Your task to perform on an android device: Open network settings Image 0: 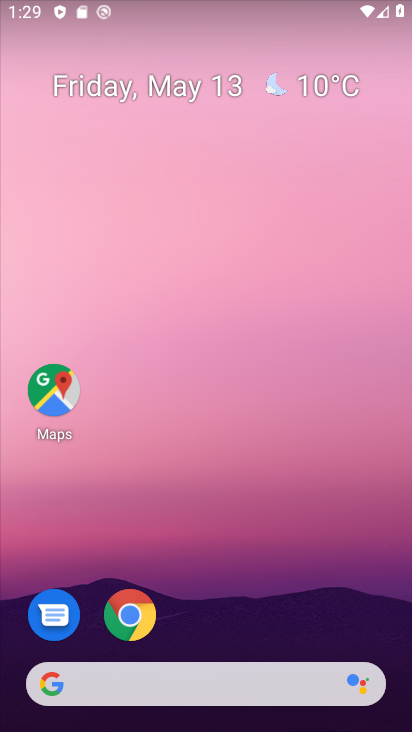
Step 0: drag from (166, 533) to (40, 118)
Your task to perform on an android device: Open network settings Image 1: 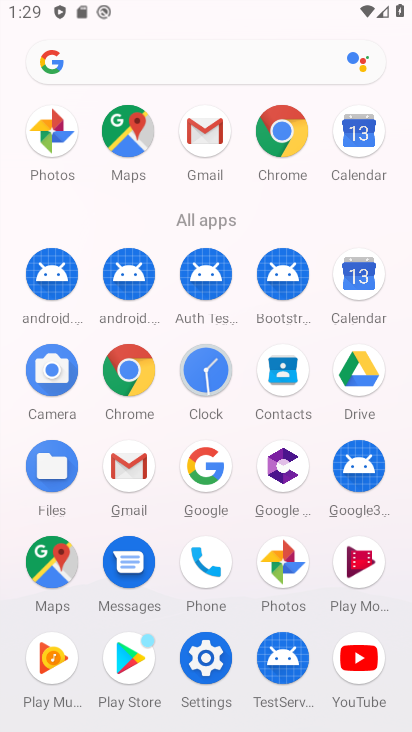
Step 1: click (211, 649)
Your task to perform on an android device: Open network settings Image 2: 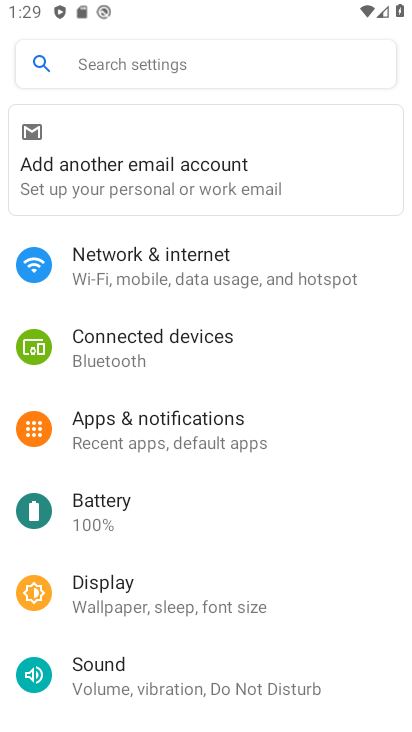
Step 2: click (214, 275)
Your task to perform on an android device: Open network settings Image 3: 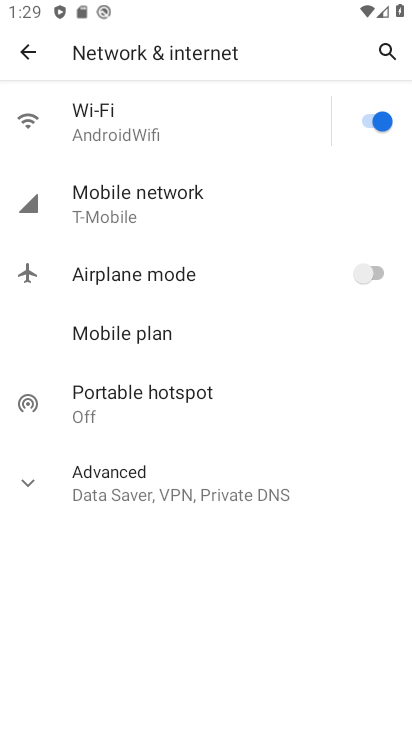
Step 3: click (154, 201)
Your task to perform on an android device: Open network settings Image 4: 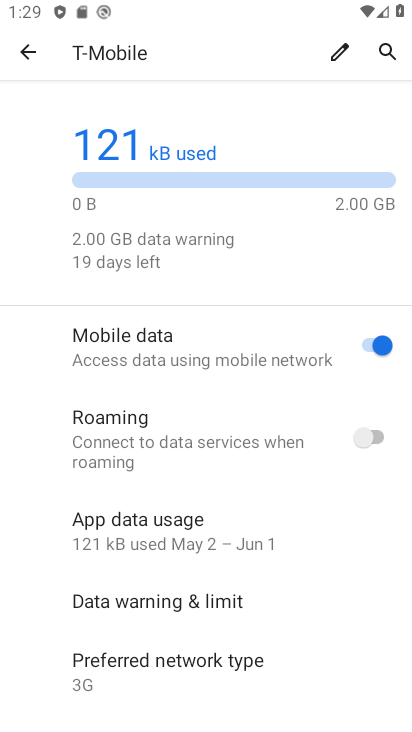
Step 4: task complete